Your task to perform on an android device: open wifi settings Image 0: 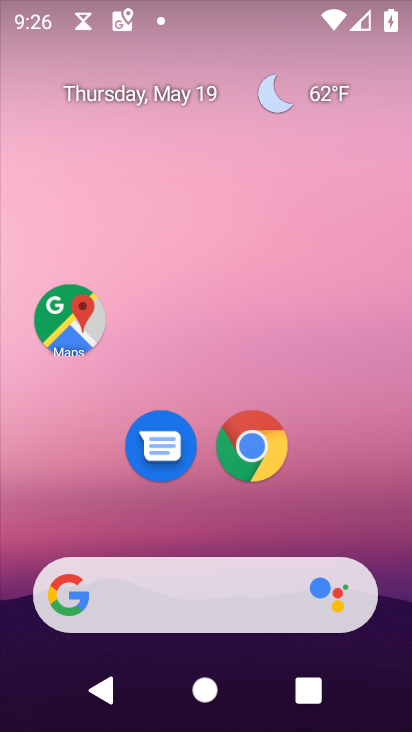
Step 0: drag from (306, 526) to (206, 23)
Your task to perform on an android device: open wifi settings Image 1: 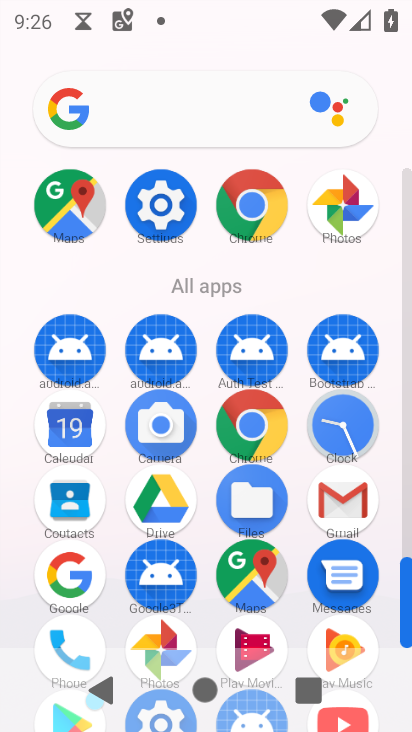
Step 1: click (152, 199)
Your task to perform on an android device: open wifi settings Image 2: 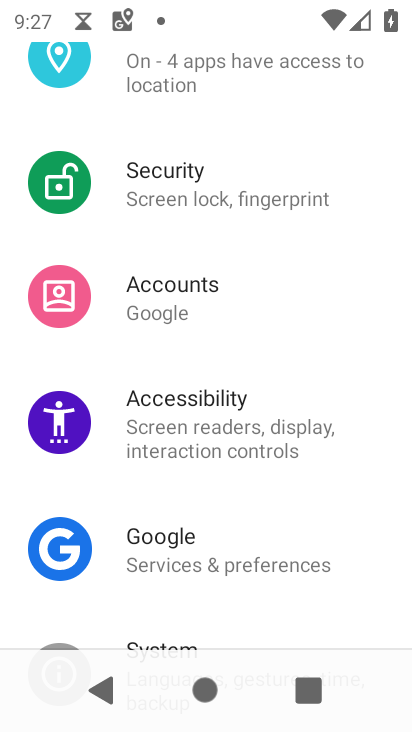
Step 2: drag from (161, 195) to (168, 456)
Your task to perform on an android device: open wifi settings Image 3: 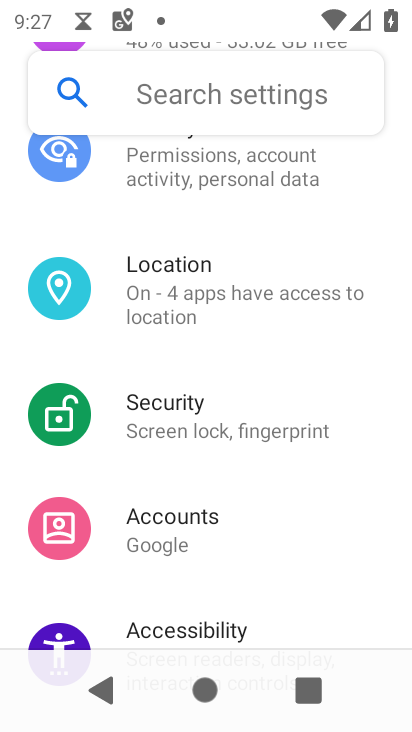
Step 3: drag from (132, 283) to (170, 467)
Your task to perform on an android device: open wifi settings Image 4: 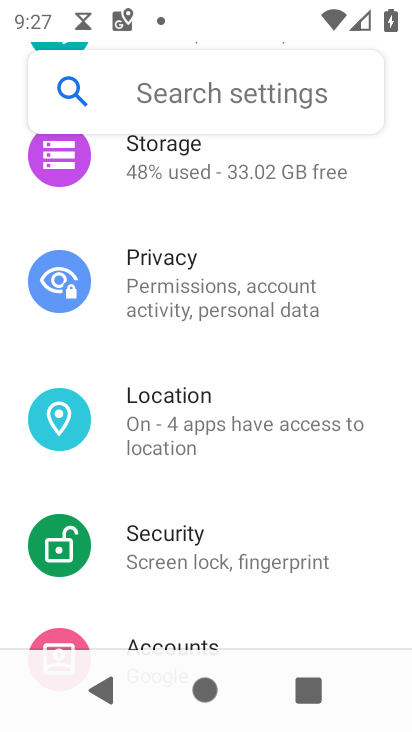
Step 4: drag from (154, 261) to (171, 394)
Your task to perform on an android device: open wifi settings Image 5: 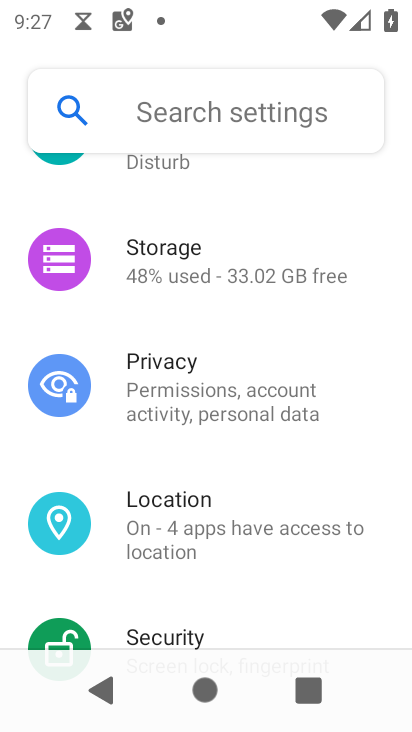
Step 5: drag from (153, 197) to (146, 362)
Your task to perform on an android device: open wifi settings Image 6: 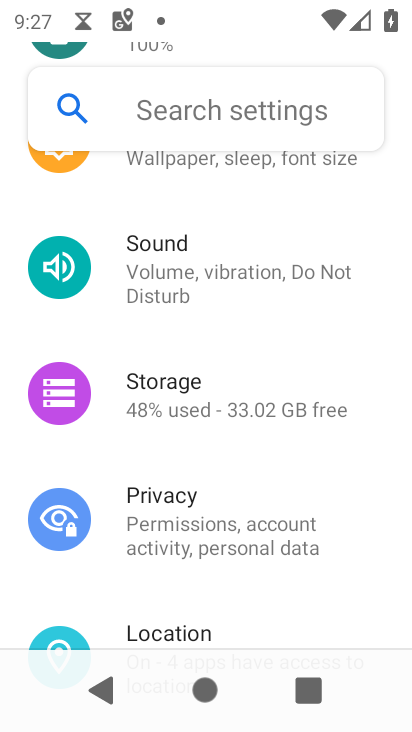
Step 6: drag from (148, 227) to (146, 363)
Your task to perform on an android device: open wifi settings Image 7: 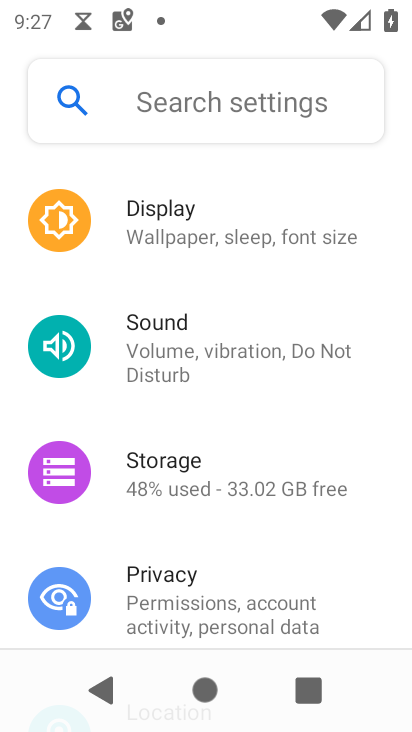
Step 7: drag from (290, 338) to (394, 717)
Your task to perform on an android device: open wifi settings Image 8: 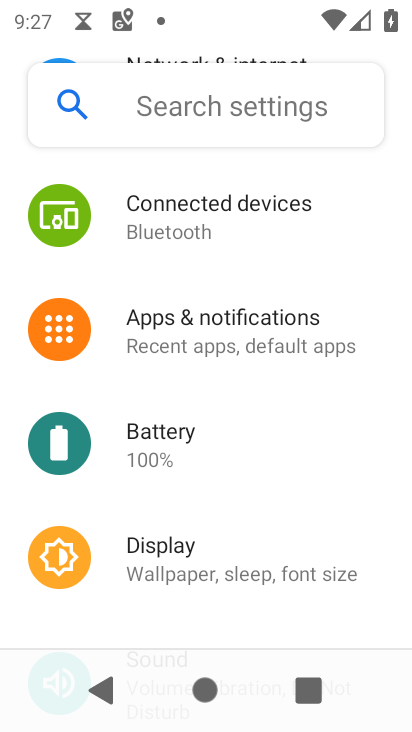
Step 8: drag from (256, 231) to (348, 497)
Your task to perform on an android device: open wifi settings Image 9: 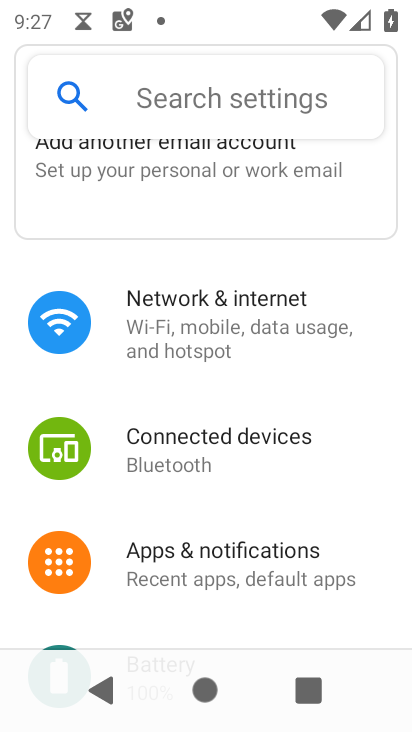
Step 9: click (237, 315)
Your task to perform on an android device: open wifi settings Image 10: 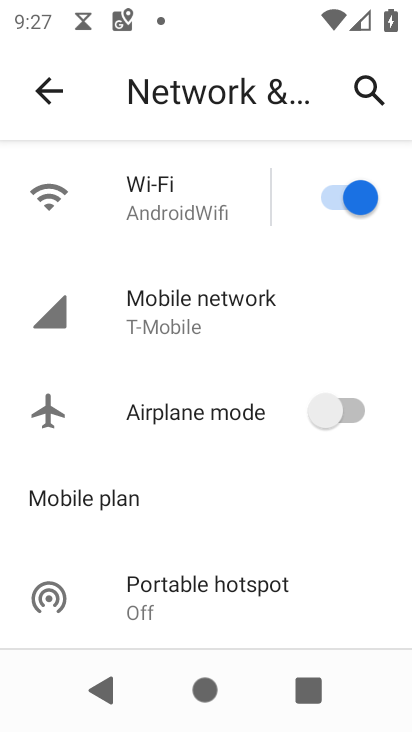
Step 10: click (140, 199)
Your task to perform on an android device: open wifi settings Image 11: 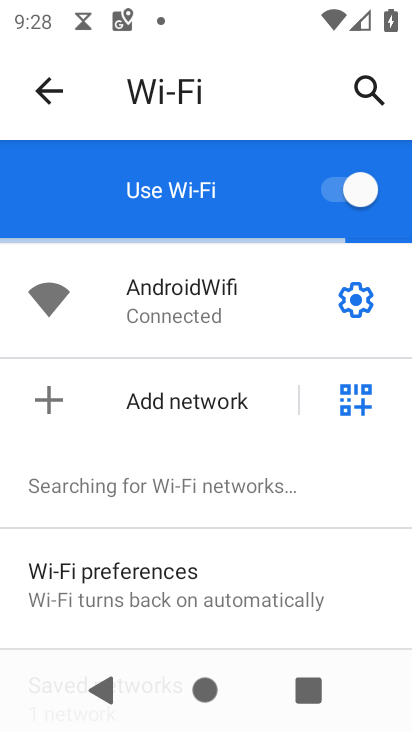
Step 11: task complete